Your task to perform on an android device: turn on airplane mode Image 0: 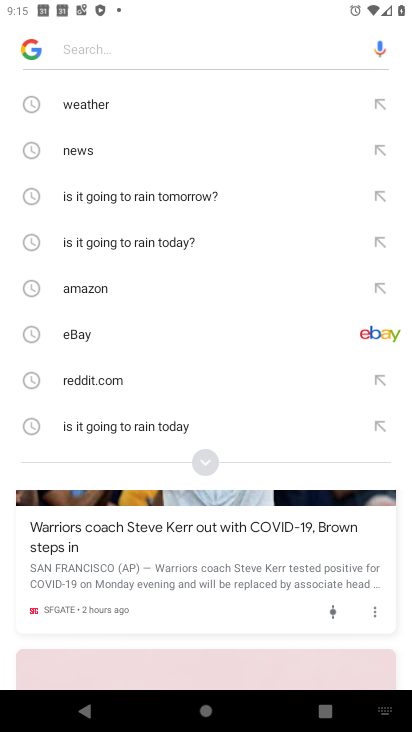
Step 0: press home button
Your task to perform on an android device: turn on airplane mode Image 1: 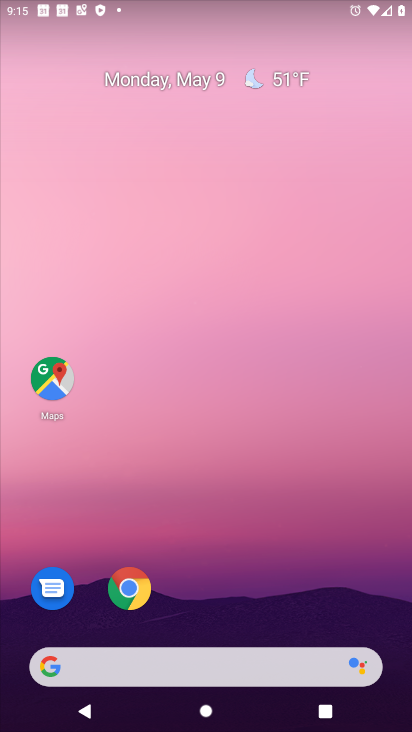
Step 1: drag from (353, 5) to (358, 595)
Your task to perform on an android device: turn on airplane mode Image 2: 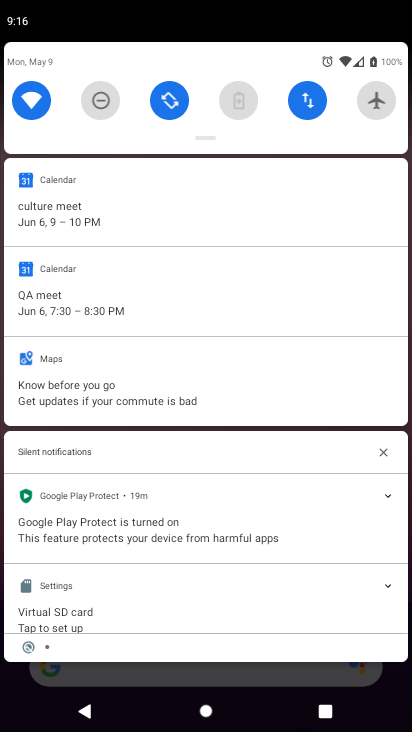
Step 2: click (376, 84)
Your task to perform on an android device: turn on airplane mode Image 3: 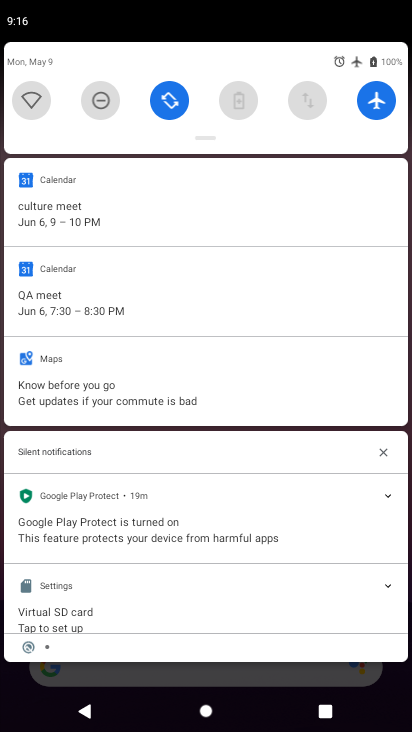
Step 3: task complete